Your task to perform on an android device: show emergency info Image 0: 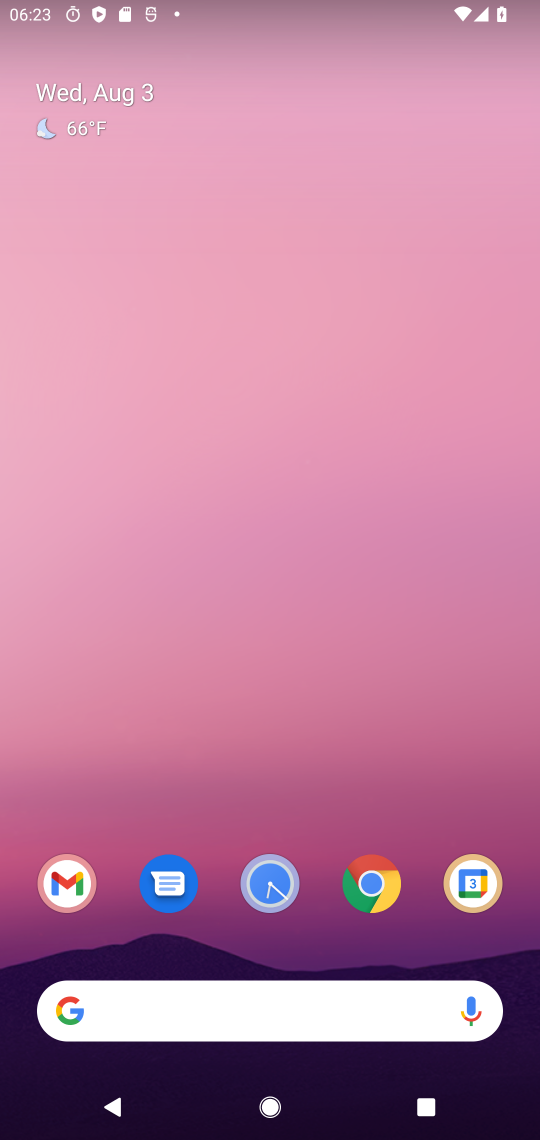
Step 0: drag from (187, 976) to (175, 373)
Your task to perform on an android device: show emergency info Image 1: 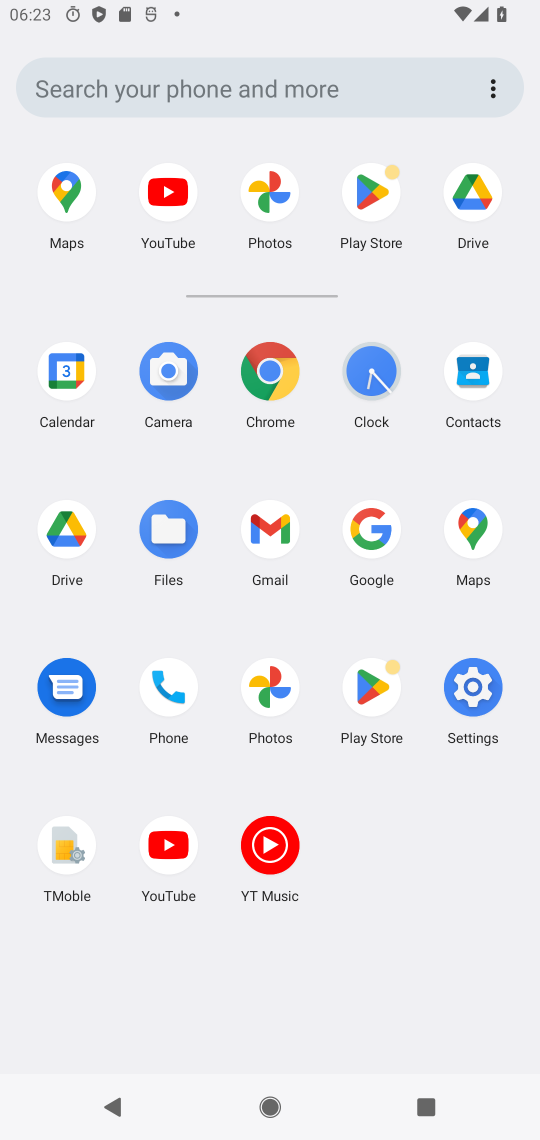
Step 1: click (467, 686)
Your task to perform on an android device: show emergency info Image 2: 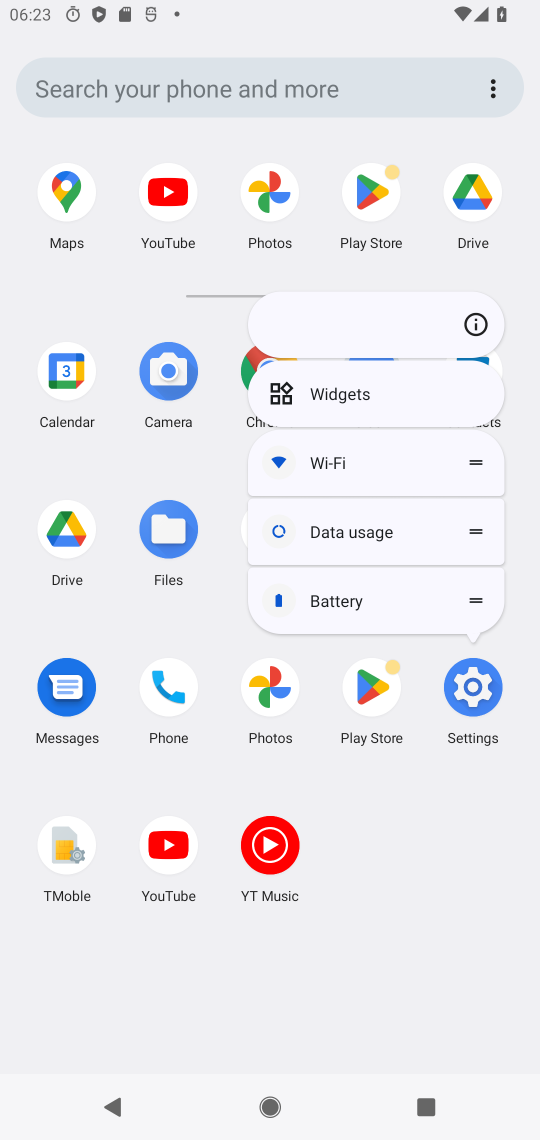
Step 2: click (489, 675)
Your task to perform on an android device: show emergency info Image 3: 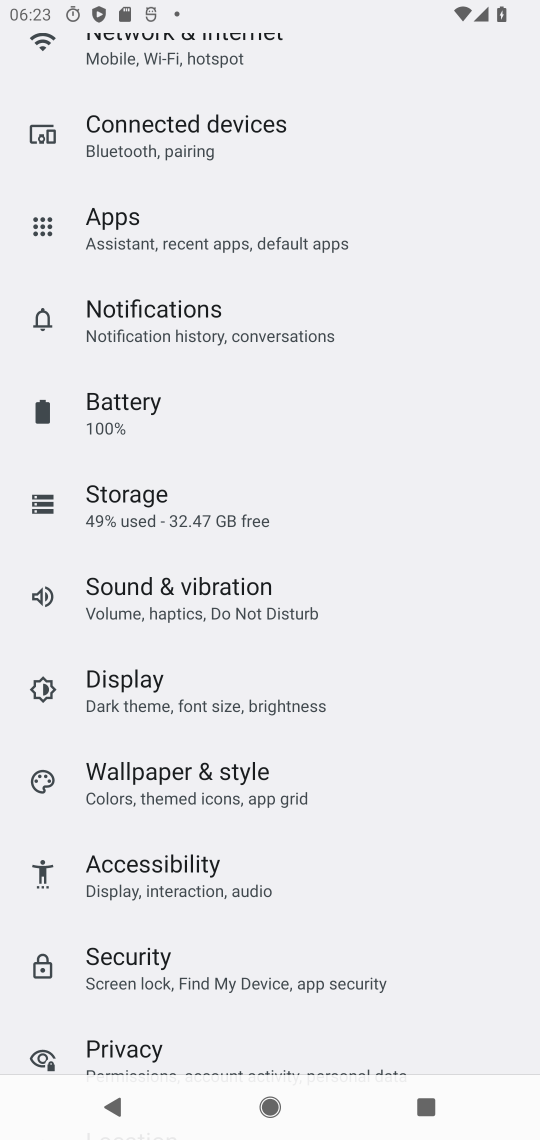
Step 3: drag from (163, 1061) to (164, 260)
Your task to perform on an android device: show emergency info Image 4: 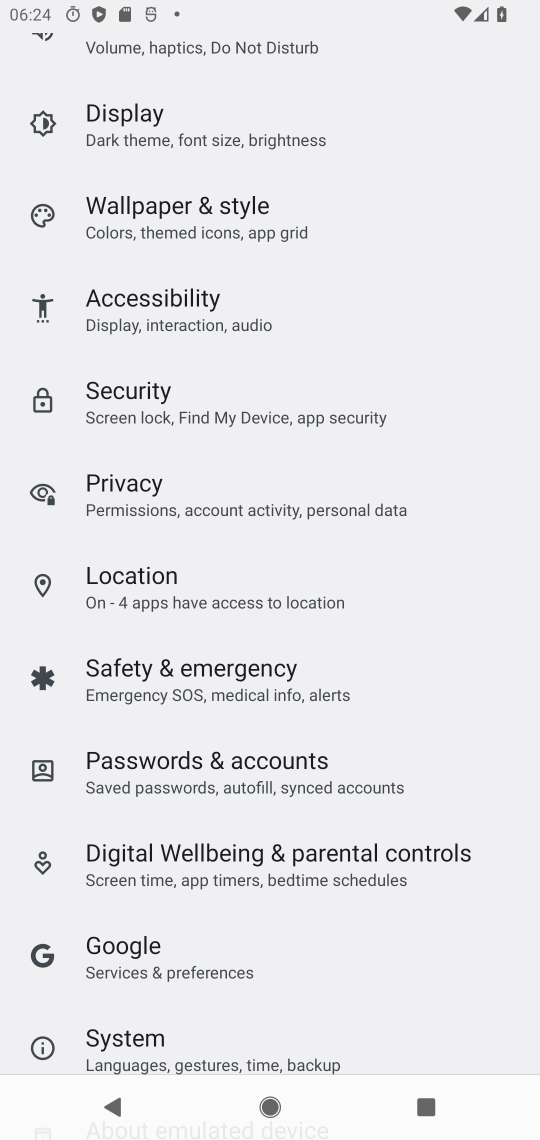
Step 4: drag from (146, 877) to (147, 279)
Your task to perform on an android device: show emergency info Image 5: 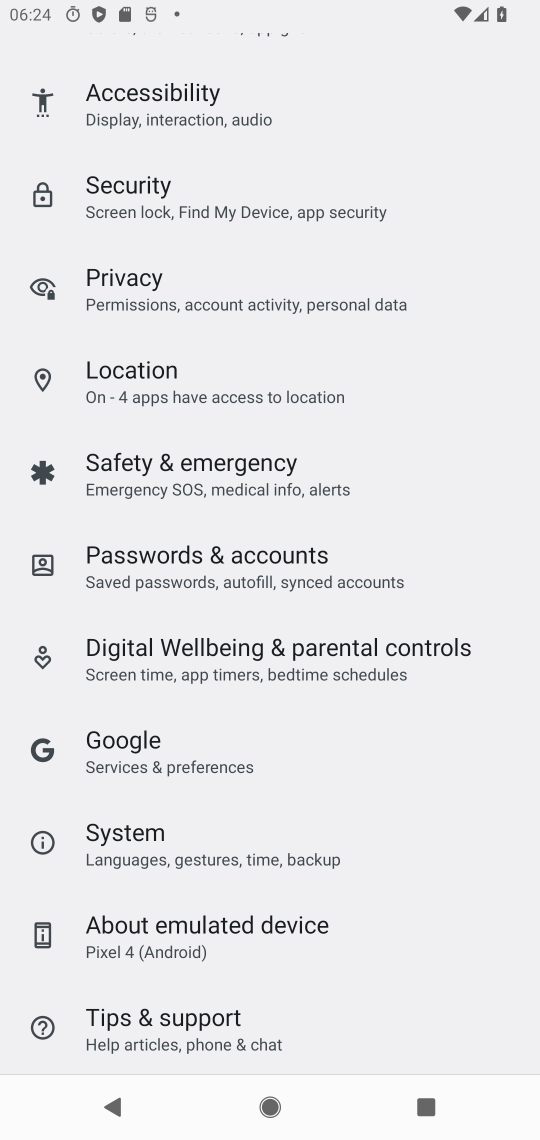
Step 5: click (128, 945)
Your task to perform on an android device: show emergency info Image 6: 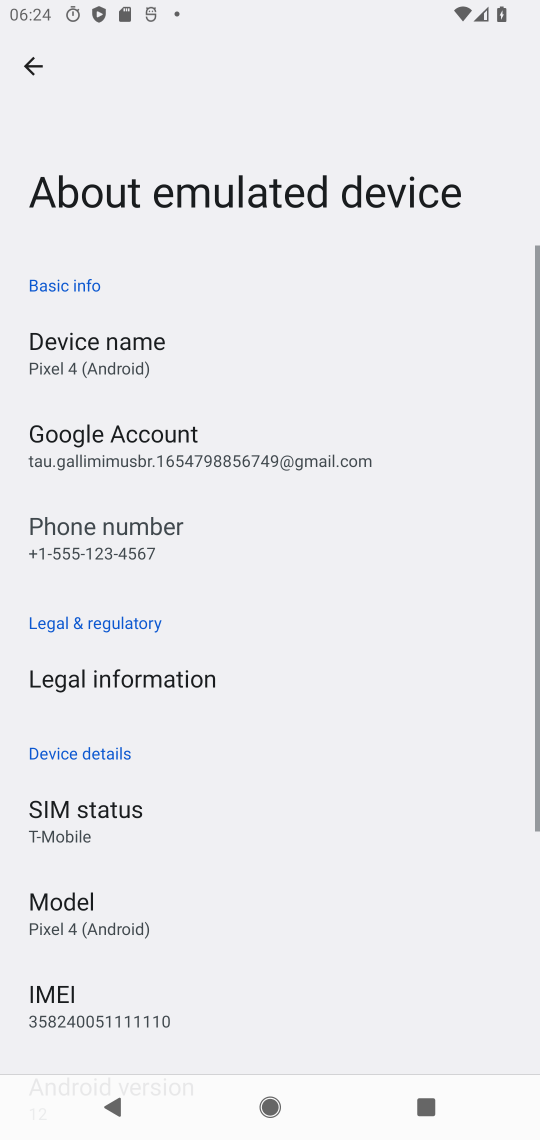
Step 6: click (91, 680)
Your task to perform on an android device: show emergency info Image 7: 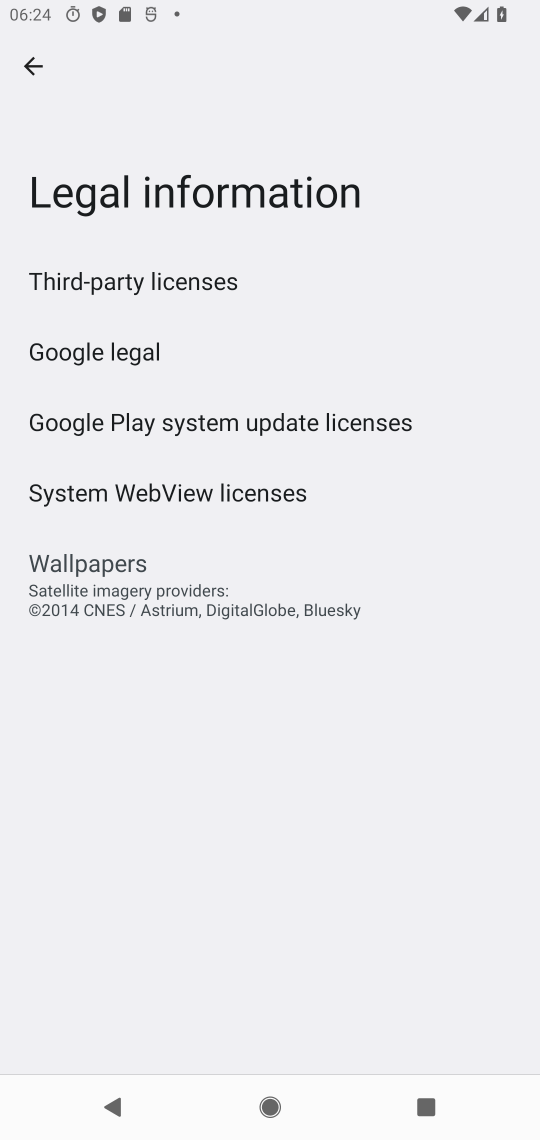
Step 7: task complete